Your task to perform on an android device: Open Google Chrome Image 0: 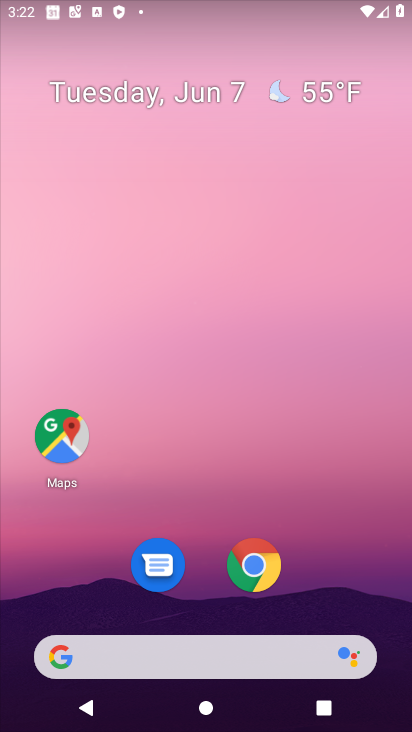
Step 0: drag from (275, 613) to (265, 35)
Your task to perform on an android device: Open Google Chrome Image 1: 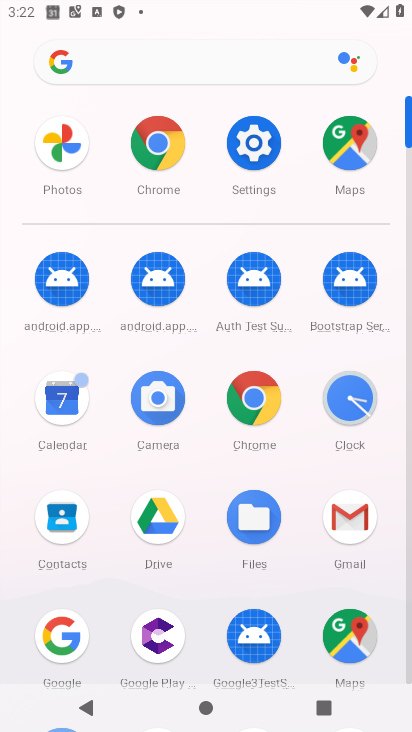
Step 1: click (267, 400)
Your task to perform on an android device: Open Google Chrome Image 2: 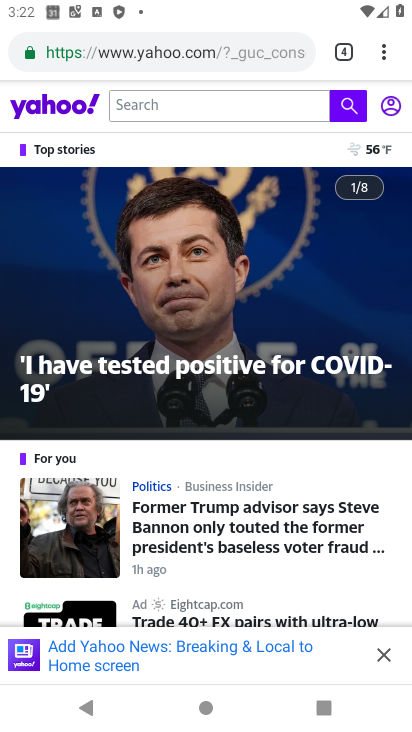
Step 2: task complete